Your task to perform on an android device: When is my next appointment? Image 0: 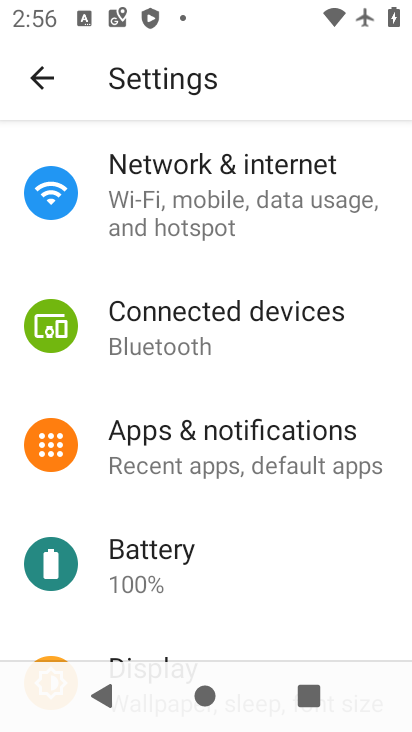
Step 0: press home button
Your task to perform on an android device: When is my next appointment? Image 1: 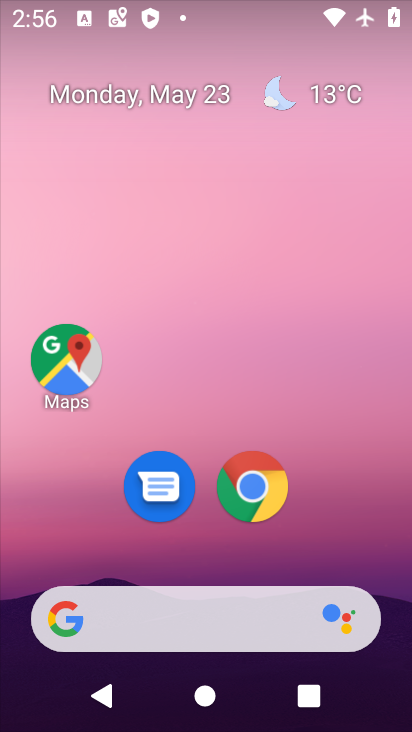
Step 1: drag from (395, 604) to (324, 51)
Your task to perform on an android device: When is my next appointment? Image 2: 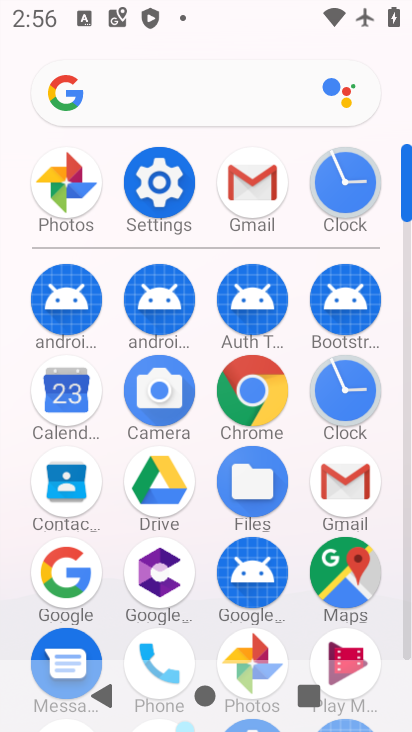
Step 2: click (70, 394)
Your task to perform on an android device: When is my next appointment? Image 3: 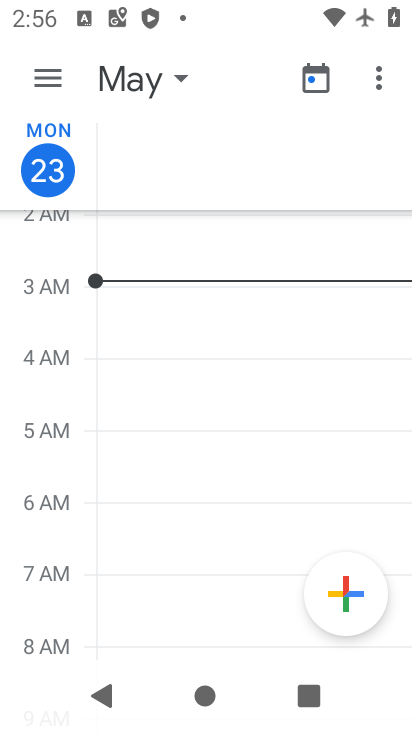
Step 3: drag from (150, 619) to (187, 238)
Your task to perform on an android device: When is my next appointment? Image 4: 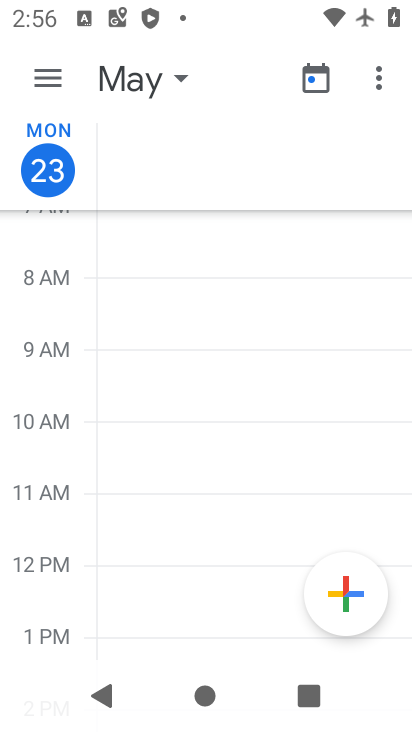
Step 4: drag from (208, 603) to (239, 259)
Your task to perform on an android device: When is my next appointment? Image 5: 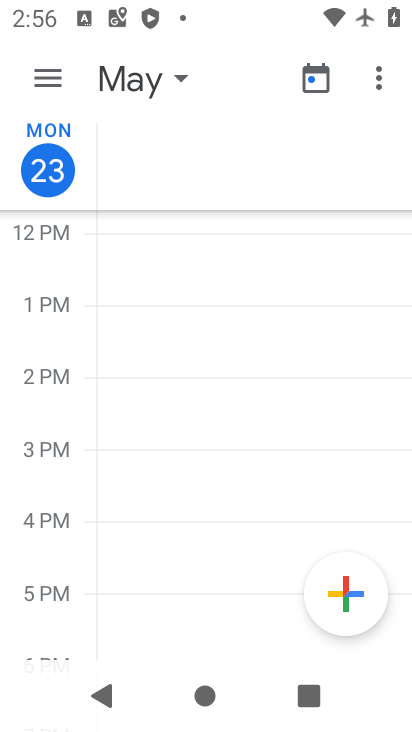
Step 5: click (48, 68)
Your task to perform on an android device: When is my next appointment? Image 6: 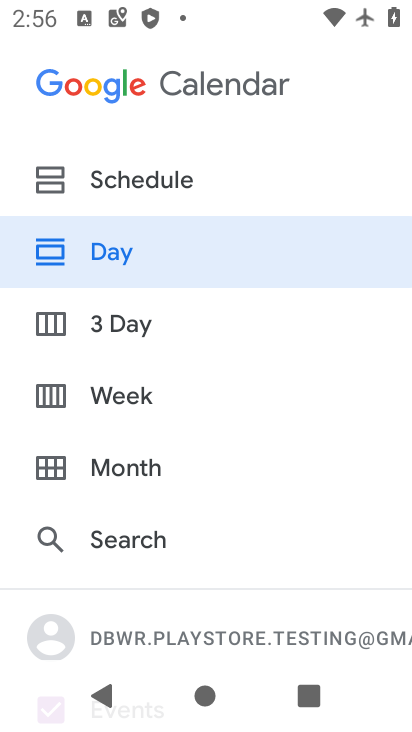
Step 6: click (112, 184)
Your task to perform on an android device: When is my next appointment? Image 7: 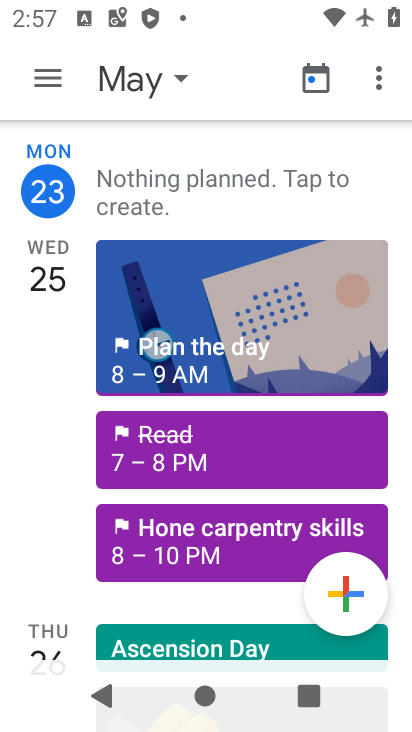
Step 7: task complete